Your task to perform on an android device: open app "PlayWell" Image 0: 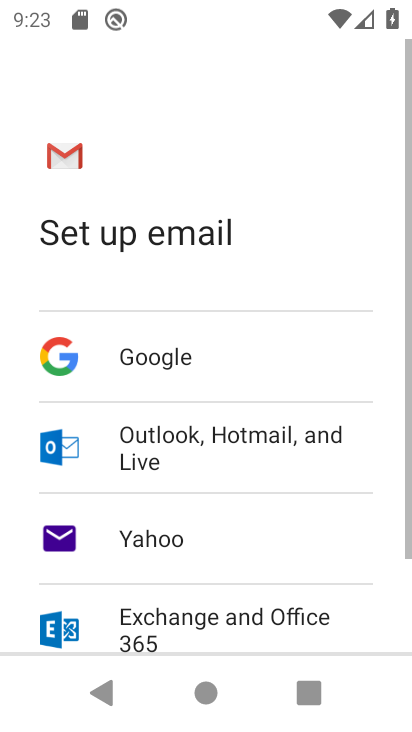
Step 0: press home button
Your task to perform on an android device: open app "PlayWell" Image 1: 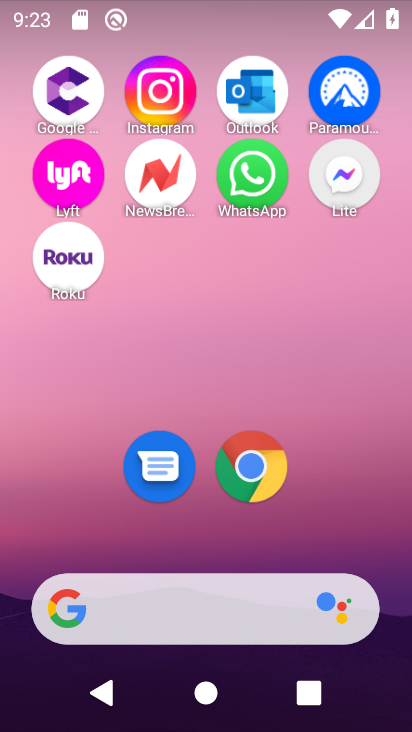
Step 1: drag from (238, 711) to (239, 130)
Your task to perform on an android device: open app "PlayWell" Image 2: 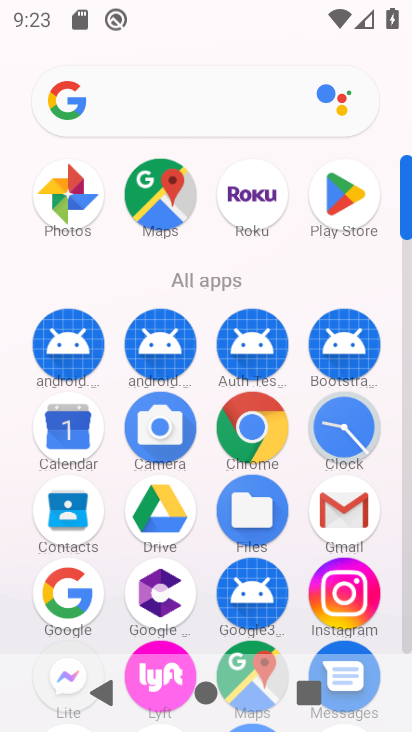
Step 2: click (338, 192)
Your task to perform on an android device: open app "PlayWell" Image 3: 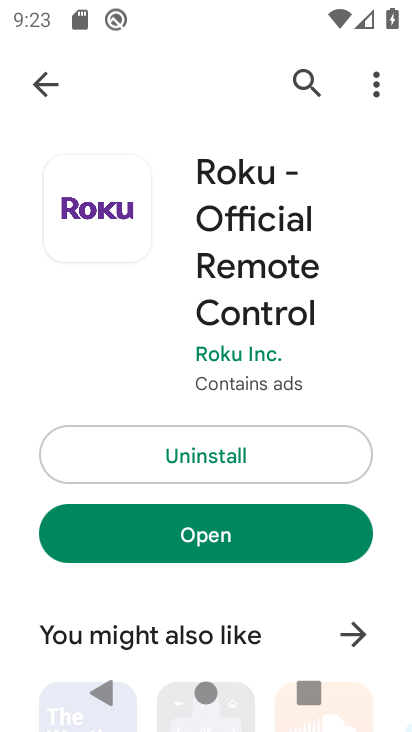
Step 3: click (302, 81)
Your task to perform on an android device: open app "PlayWell" Image 4: 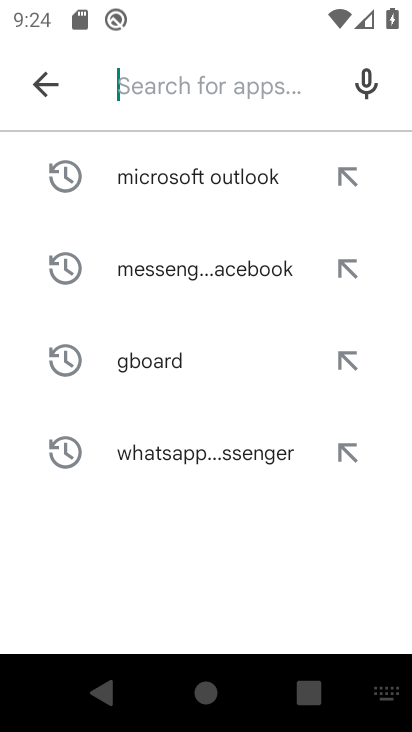
Step 4: type "PlayWell"
Your task to perform on an android device: open app "PlayWell" Image 5: 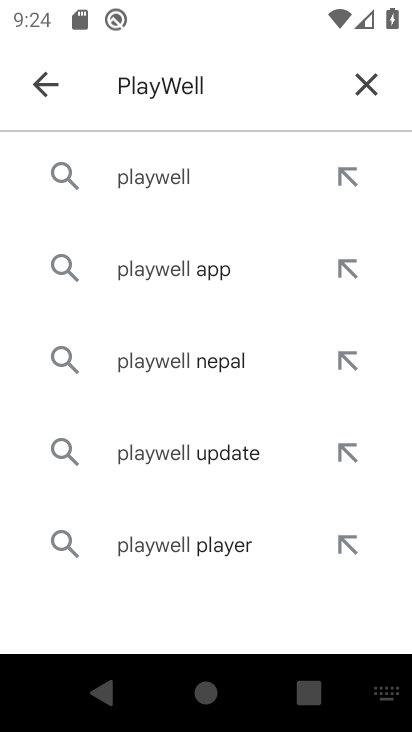
Step 5: click (143, 178)
Your task to perform on an android device: open app "PlayWell" Image 6: 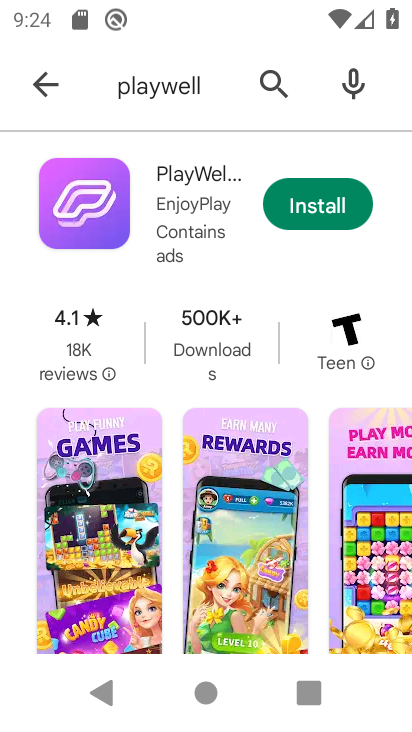
Step 6: task complete